Your task to perform on an android device: Go to privacy settings Image 0: 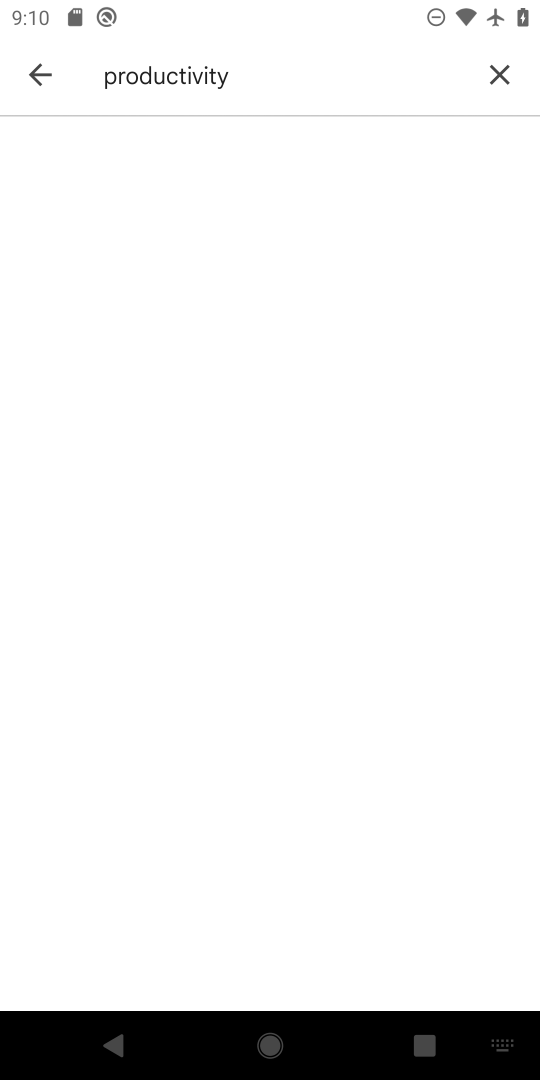
Step 0: press home button
Your task to perform on an android device: Go to privacy settings Image 1: 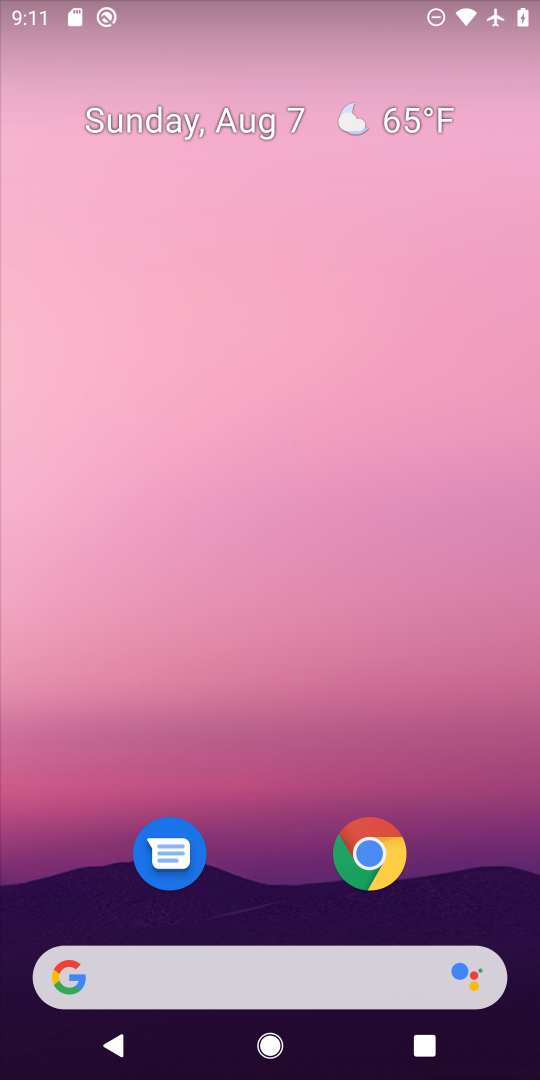
Step 1: click (203, 280)
Your task to perform on an android device: Go to privacy settings Image 2: 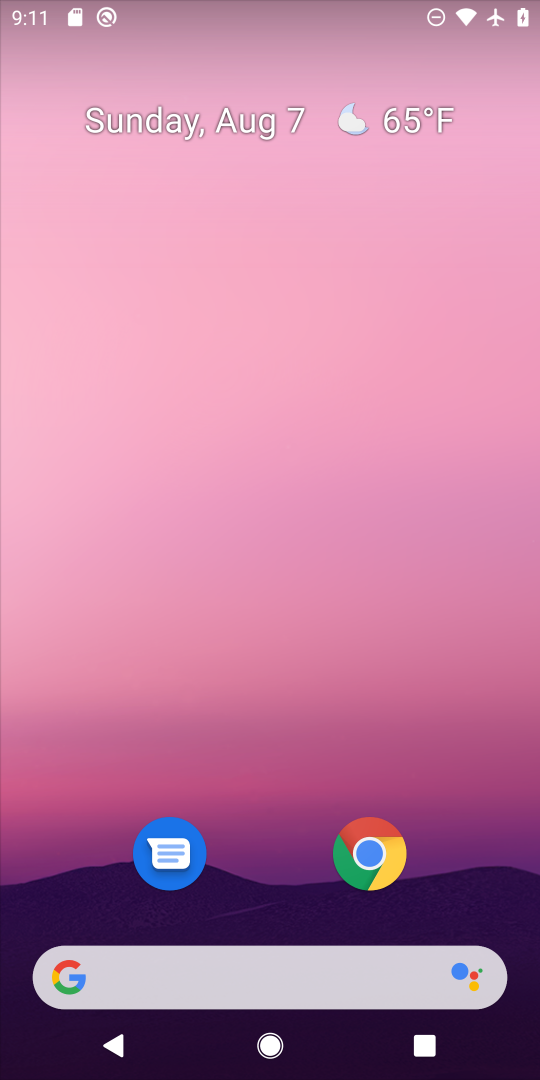
Step 2: drag from (305, 990) to (386, 111)
Your task to perform on an android device: Go to privacy settings Image 3: 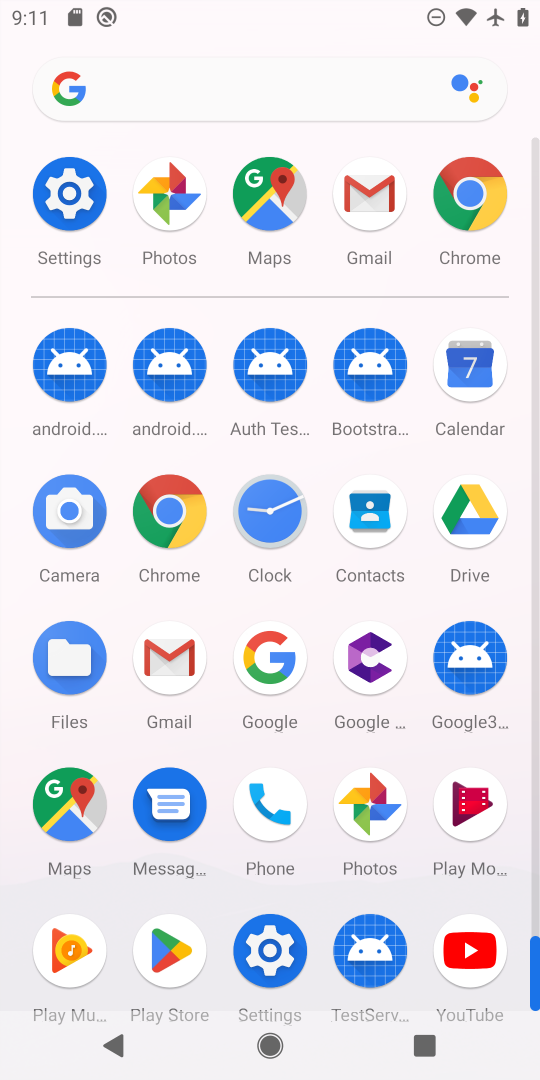
Step 3: click (84, 190)
Your task to perform on an android device: Go to privacy settings Image 4: 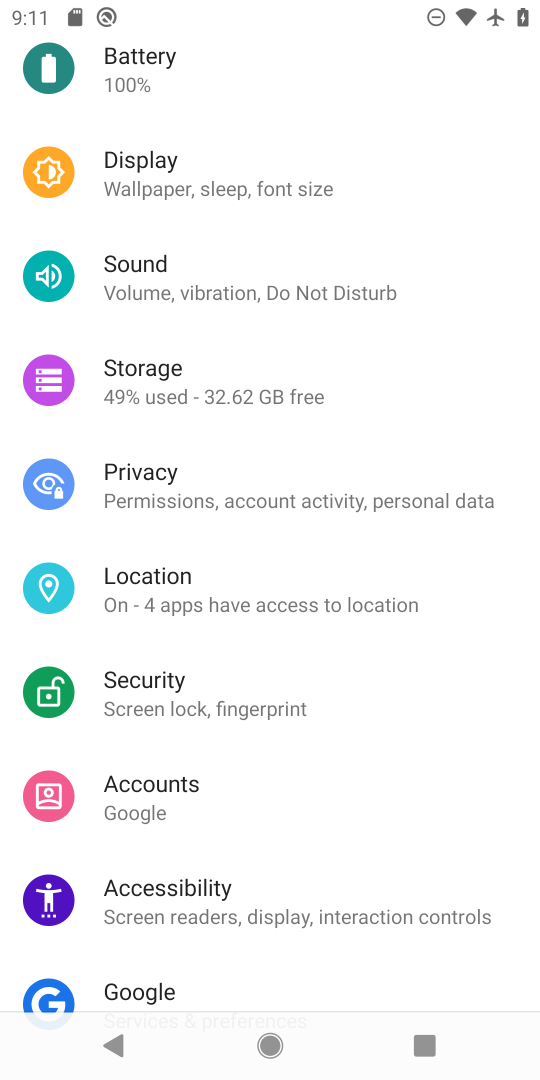
Step 4: click (268, 509)
Your task to perform on an android device: Go to privacy settings Image 5: 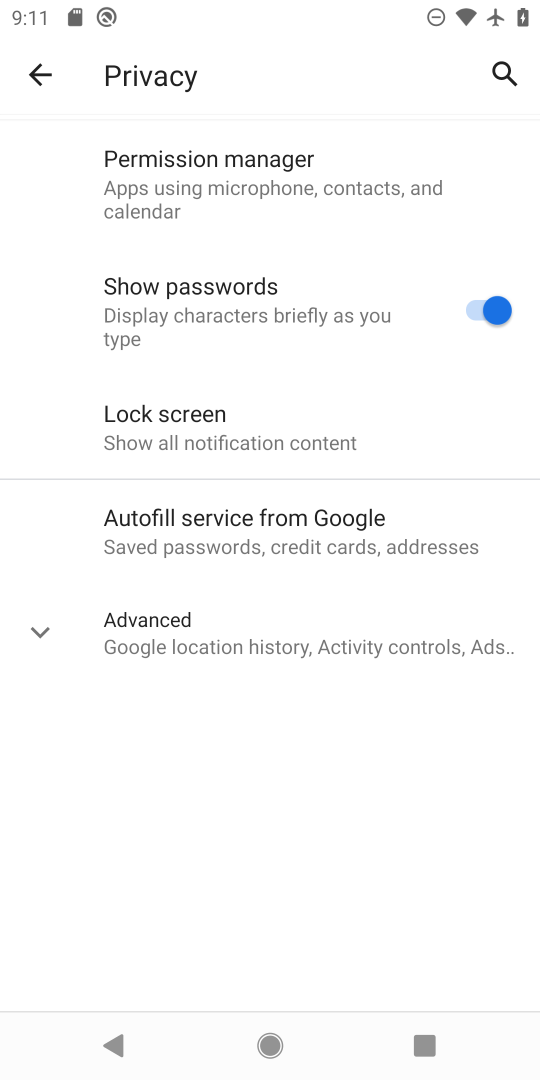
Step 5: task complete